Your task to perform on an android device: Is it going to rain this weekend? Image 0: 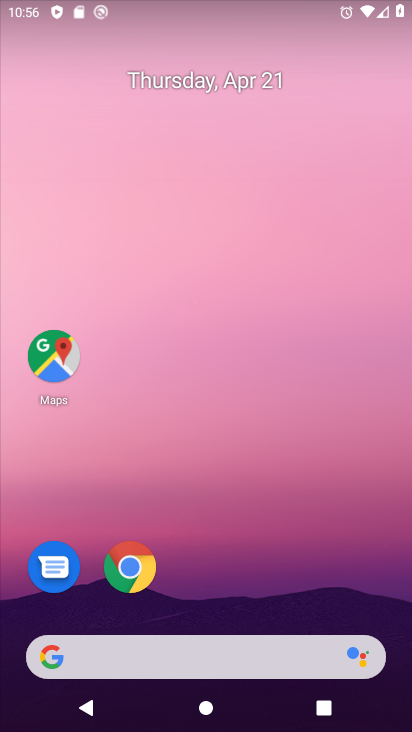
Step 0: click (185, 650)
Your task to perform on an android device: Is it going to rain this weekend? Image 1: 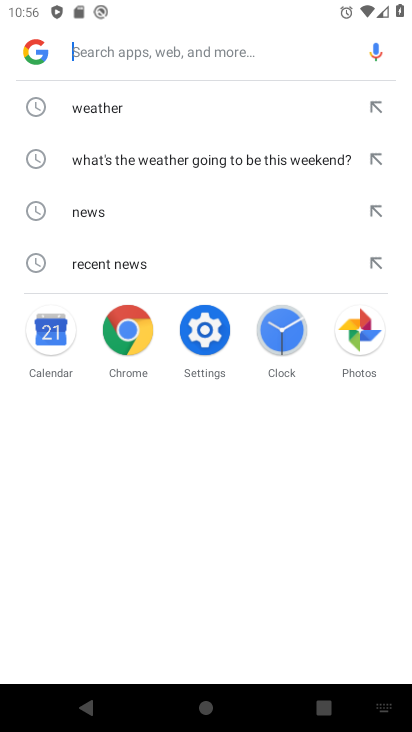
Step 1: click (102, 115)
Your task to perform on an android device: Is it going to rain this weekend? Image 2: 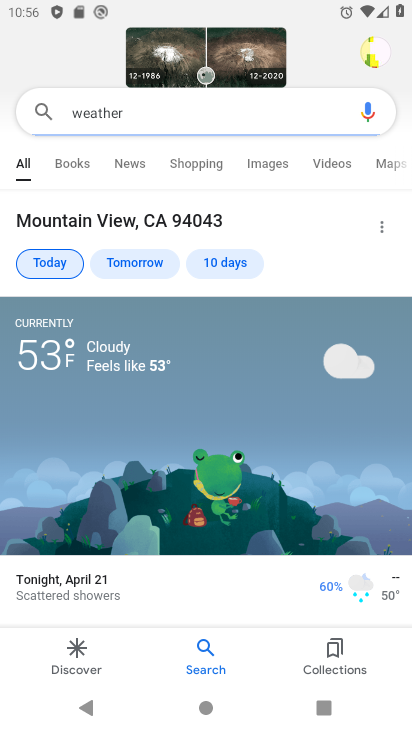
Step 2: click (231, 259)
Your task to perform on an android device: Is it going to rain this weekend? Image 3: 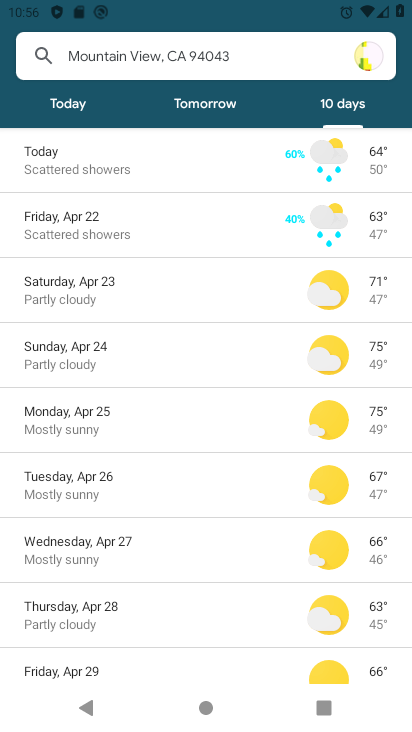
Step 3: task complete